Your task to perform on an android device: Show me popular videos on Youtube Image 0: 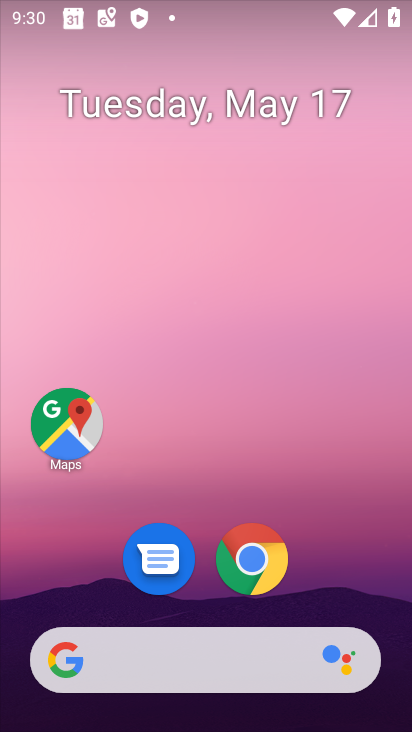
Step 0: drag from (164, 715) to (248, 171)
Your task to perform on an android device: Show me popular videos on Youtube Image 1: 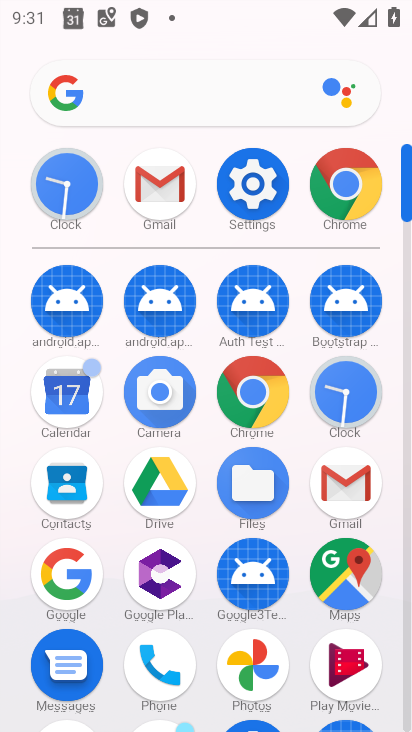
Step 1: drag from (257, 564) to (307, 32)
Your task to perform on an android device: Show me popular videos on Youtube Image 2: 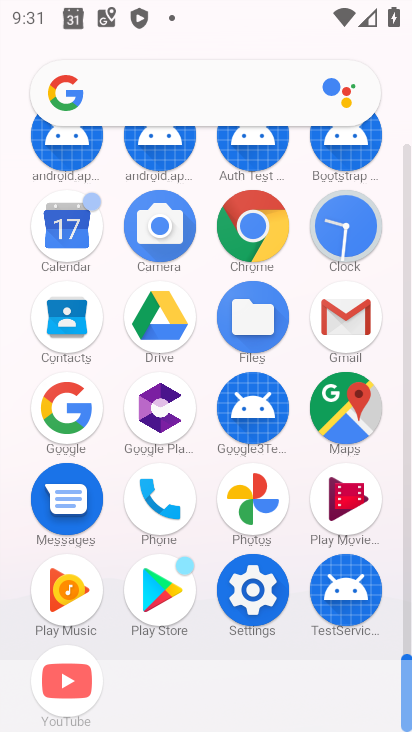
Step 2: click (70, 658)
Your task to perform on an android device: Show me popular videos on Youtube Image 3: 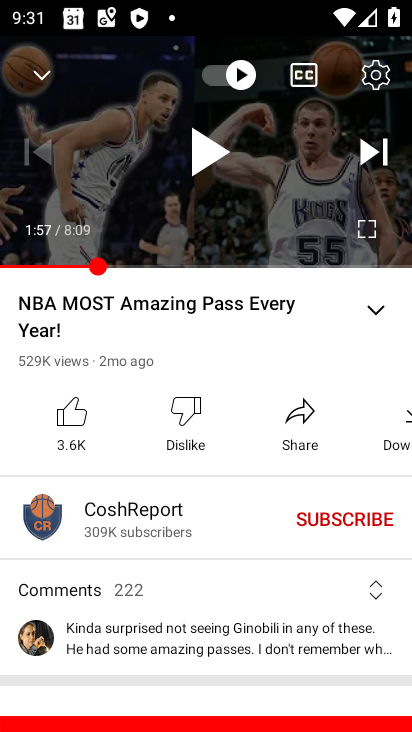
Step 3: click (42, 79)
Your task to perform on an android device: Show me popular videos on Youtube Image 4: 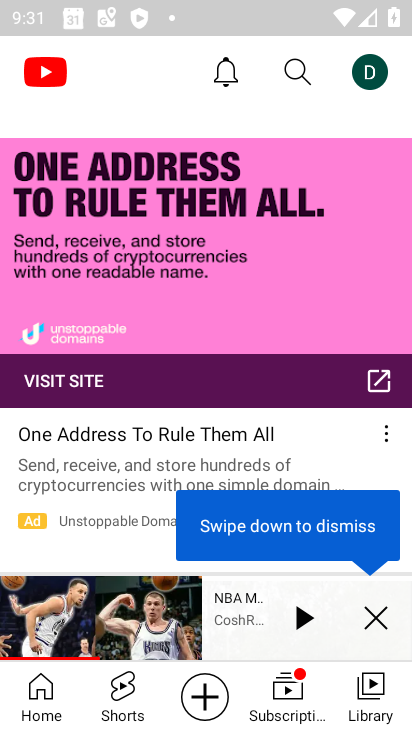
Step 4: drag from (62, 513) to (144, 63)
Your task to perform on an android device: Show me popular videos on Youtube Image 5: 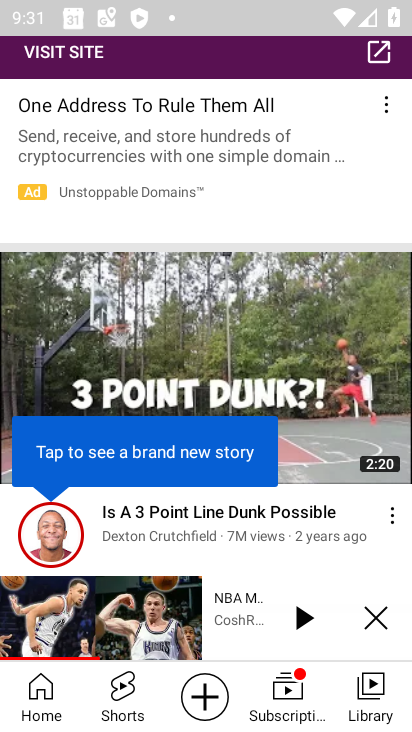
Step 5: click (377, 620)
Your task to perform on an android device: Show me popular videos on Youtube Image 6: 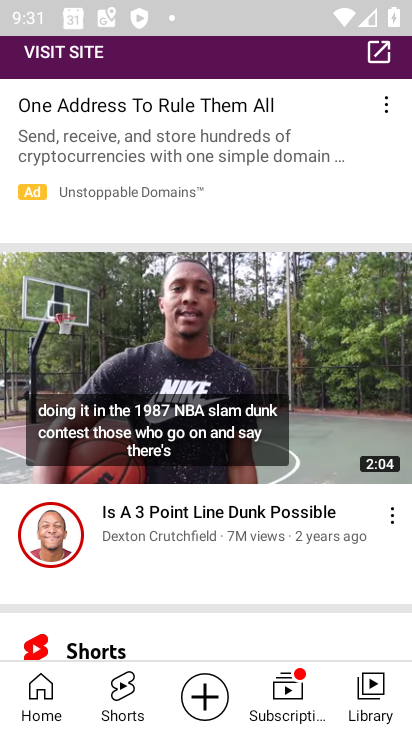
Step 6: task complete